Your task to perform on an android device: Open maps Image 0: 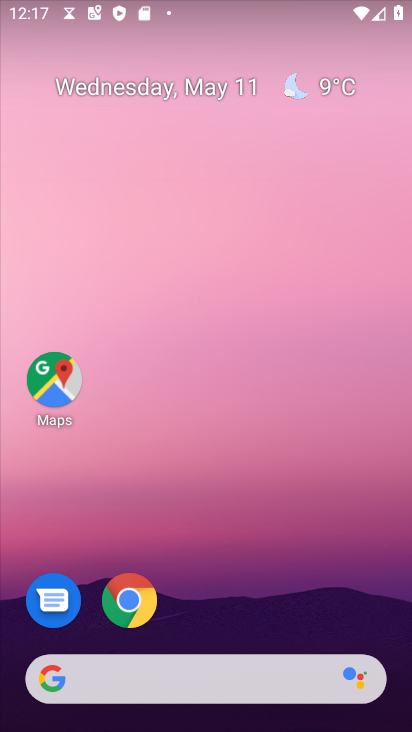
Step 0: click (63, 382)
Your task to perform on an android device: Open maps Image 1: 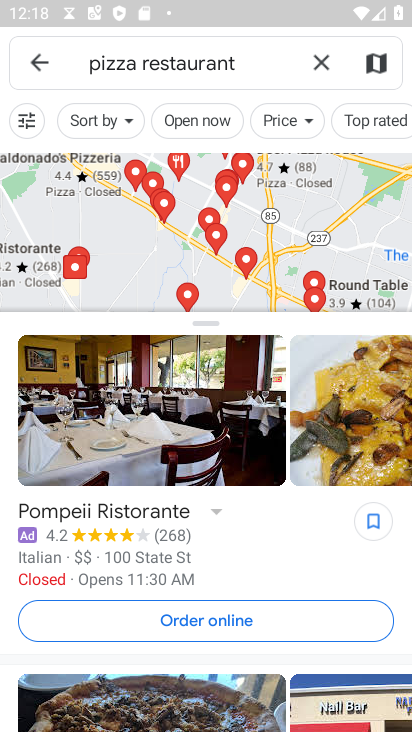
Step 1: task complete